Your task to perform on an android device: Go to display settings Image 0: 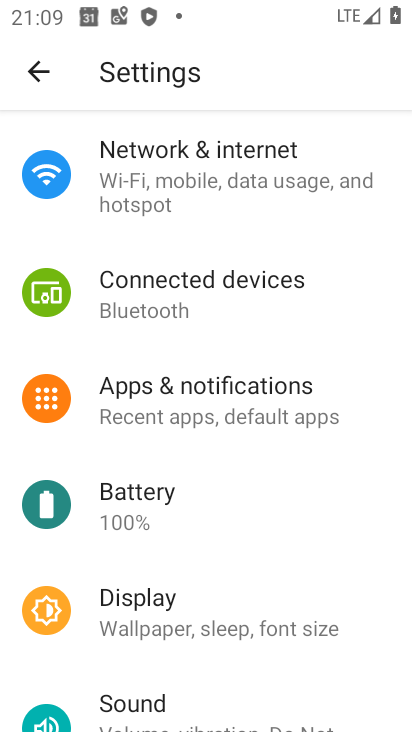
Step 0: click (114, 622)
Your task to perform on an android device: Go to display settings Image 1: 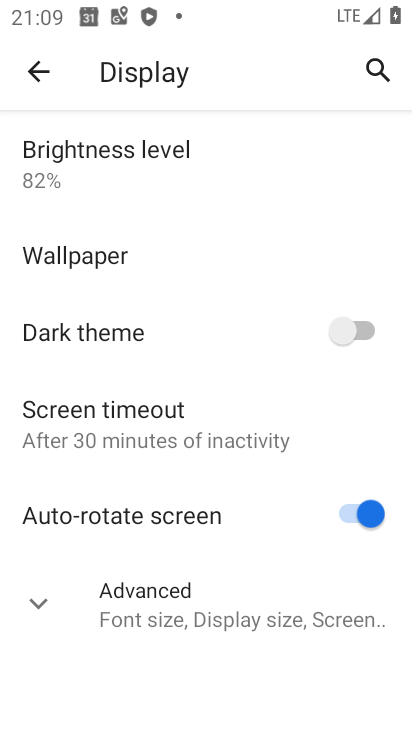
Step 1: task complete